Your task to perform on an android device: Open Google Maps Image 0: 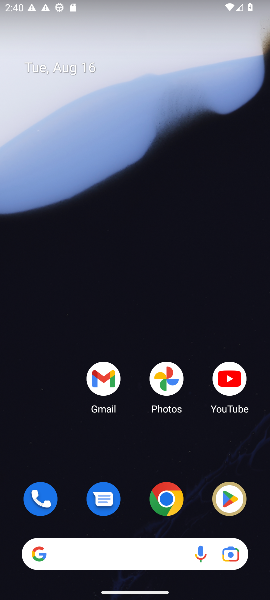
Step 0: drag from (127, 495) to (214, 28)
Your task to perform on an android device: Open Google Maps Image 1: 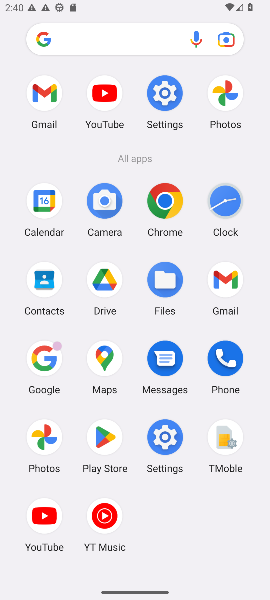
Step 1: click (107, 350)
Your task to perform on an android device: Open Google Maps Image 2: 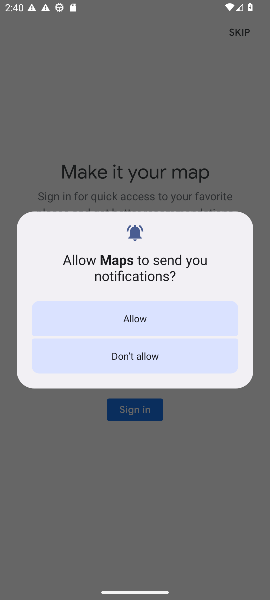
Step 2: click (125, 324)
Your task to perform on an android device: Open Google Maps Image 3: 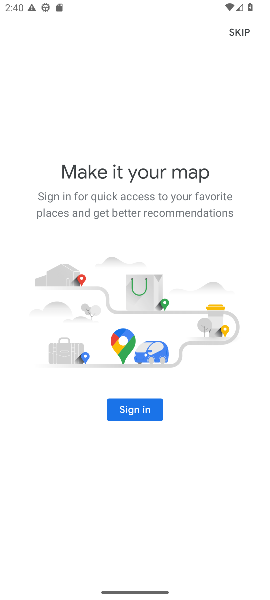
Step 3: click (243, 31)
Your task to perform on an android device: Open Google Maps Image 4: 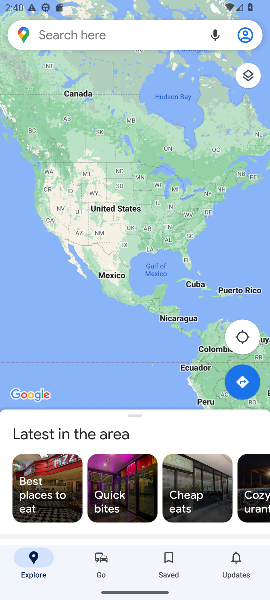
Step 4: task complete